Your task to perform on an android device: Open the Play Movies app and select the watchlist tab. Image 0: 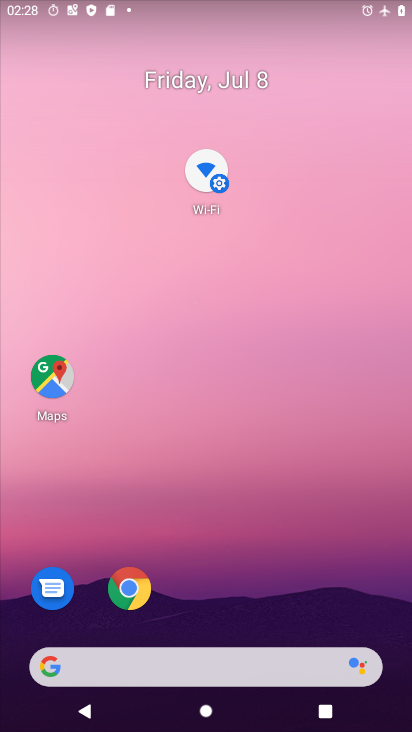
Step 0: drag from (223, 599) to (209, 146)
Your task to perform on an android device: Open the Play Movies app and select the watchlist tab. Image 1: 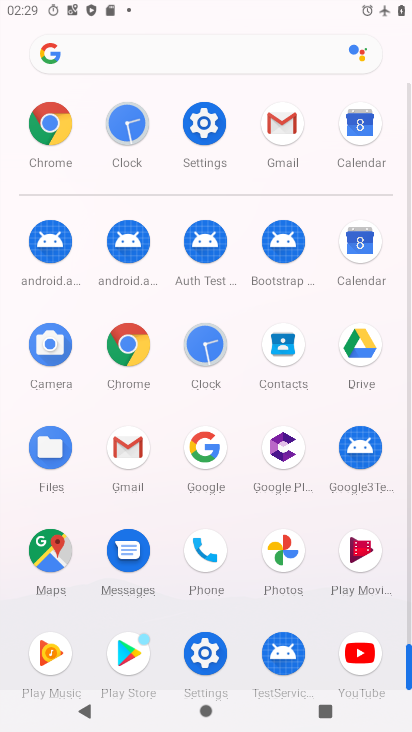
Step 1: click (351, 544)
Your task to perform on an android device: Open the Play Movies app and select the watchlist tab. Image 2: 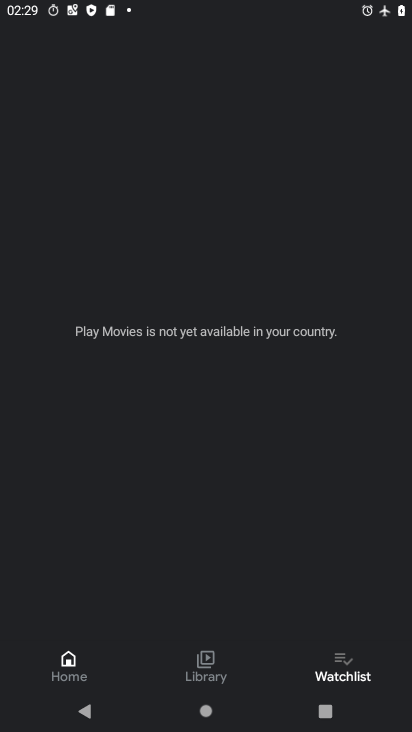
Step 2: click (342, 672)
Your task to perform on an android device: Open the Play Movies app and select the watchlist tab. Image 3: 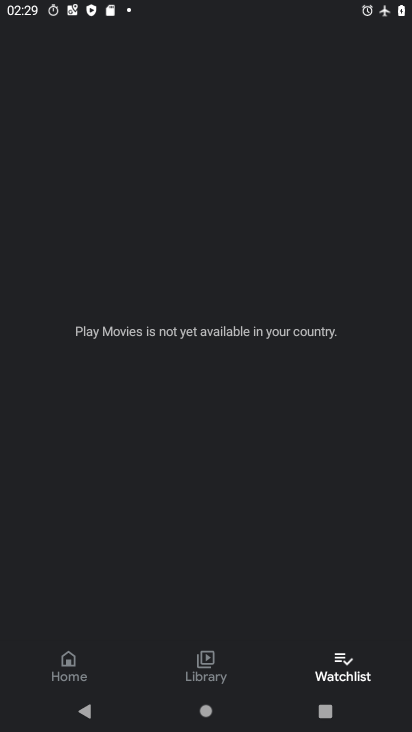
Step 3: drag from (326, 617) to (373, 294)
Your task to perform on an android device: Open the Play Movies app and select the watchlist tab. Image 4: 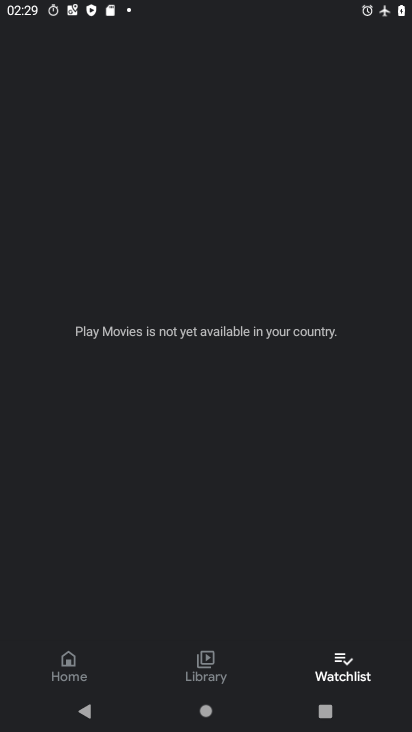
Step 4: drag from (338, 478) to (338, 302)
Your task to perform on an android device: Open the Play Movies app and select the watchlist tab. Image 5: 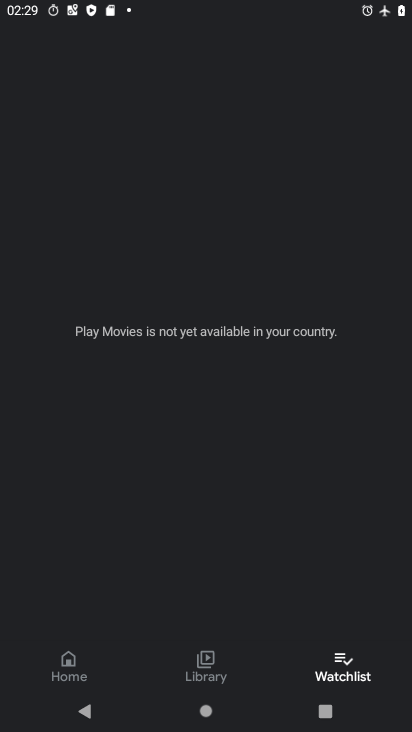
Step 5: click (326, 672)
Your task to perform on an android device: Open the Play Movies app and select the watchlist tab. Image 6: 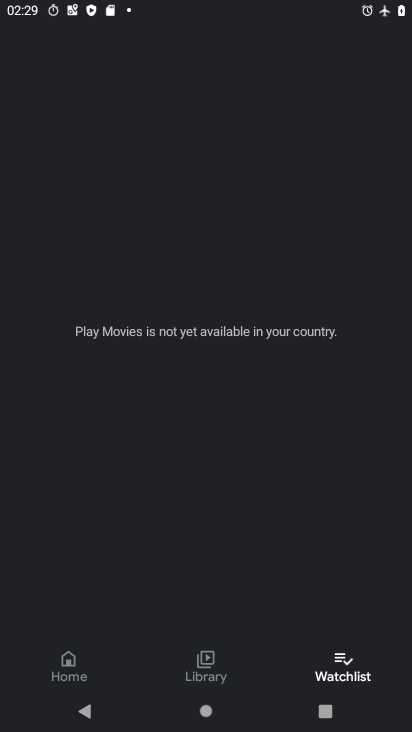
Step 6: task complete